Your task to perform on an android device: When is my next meeting? Image 0: 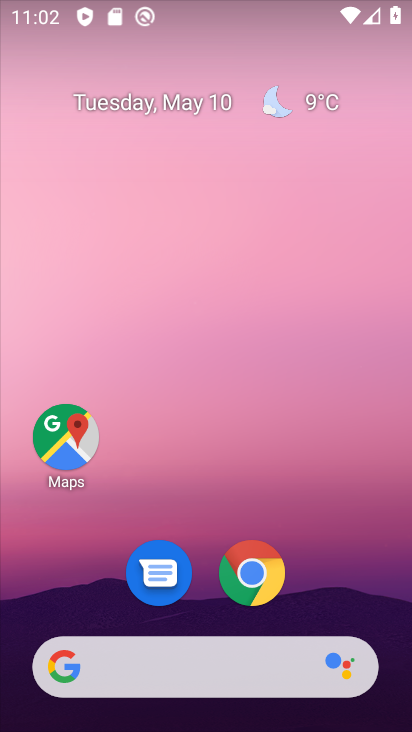
Step 0: drag from (207, 617) to (314, 279)
Your task to perform on an android device: When is my next meeting? Image 1: 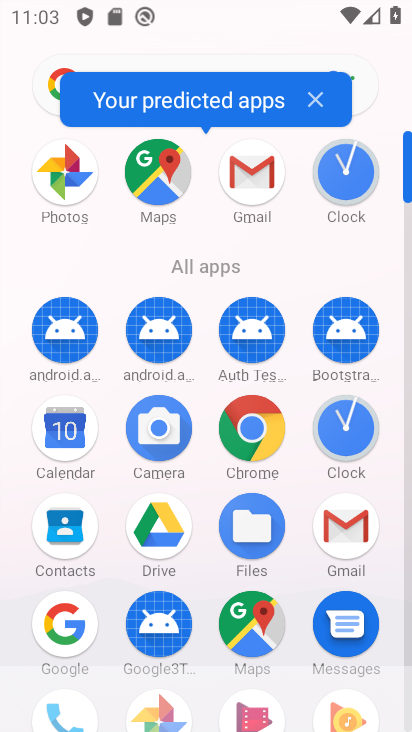
Step 1: click (62, 441)
Your task to perform on an android device: When is my next meeting? Image 2: 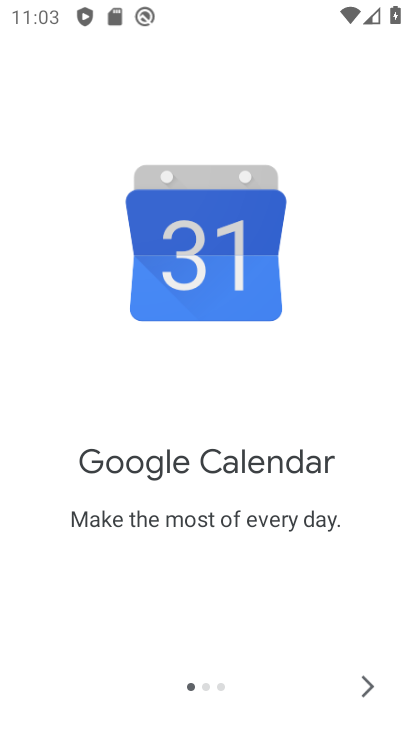
Step 2: click (373, 682)
Your task to perform on an android device: When is my next meeting? Image 3: 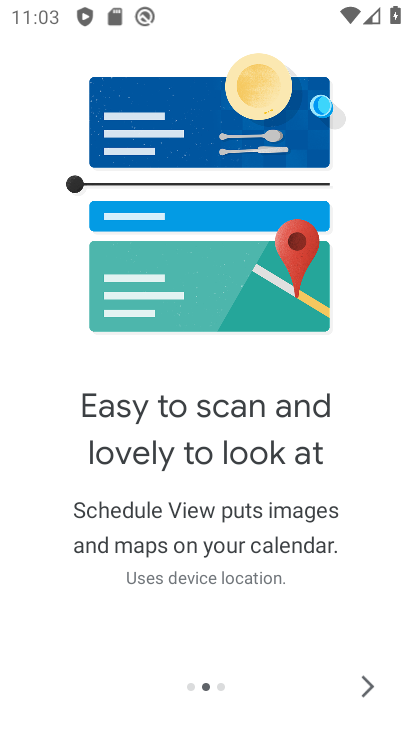
Step 3: click (373, 682)
Your task to perform on an android device: When is my next meeting? Image 4: 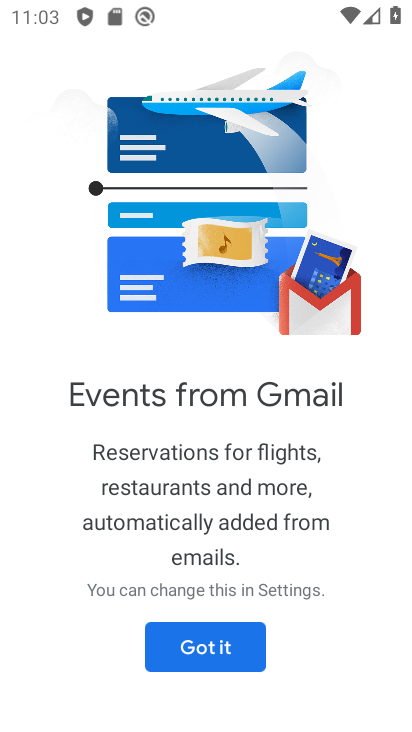
Step 4: click (180, 647)
Your task to perform on an android device: When is my next meeting? Image 5: 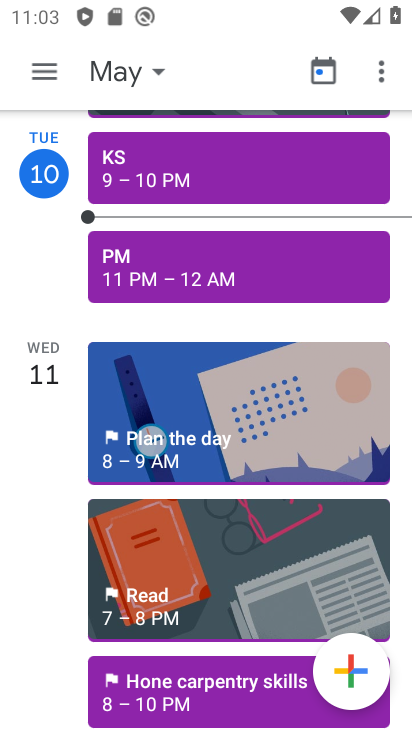
Step 5: click (99, 71)
Your task to perform on an android device: When is my next meeting? Image 6: 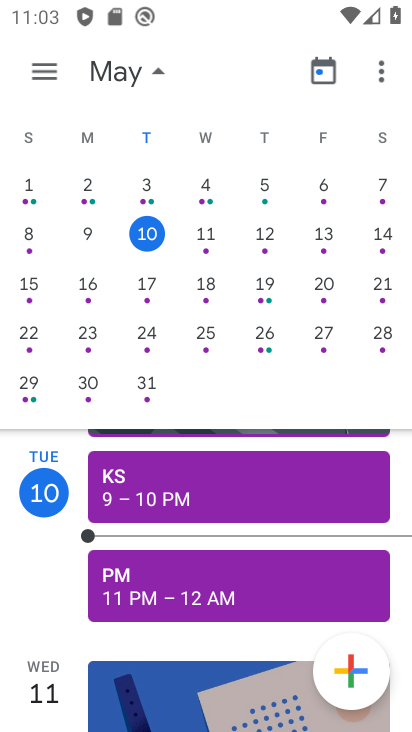
Step 6: click (43, 74)
Your task to perform on an android device: When is my next meeting? Image 7: 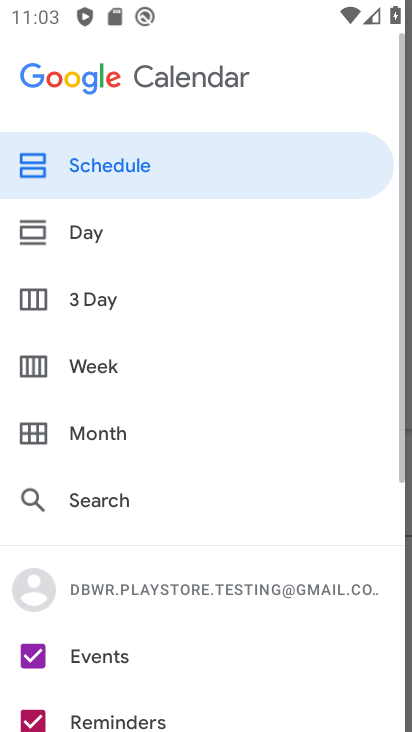
Step 7: click (85, 237)
Your task to perform on an android device: When is my next meeting? Image 8: 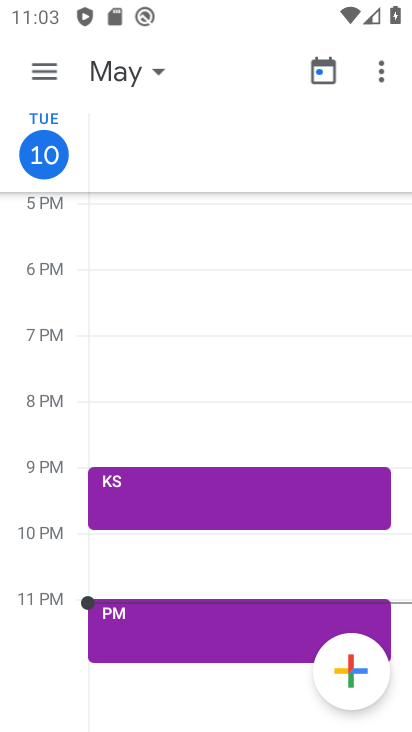
Step 8: click (37, 81)
Your task to perform on an android device: When is my next meeting? Image 9: 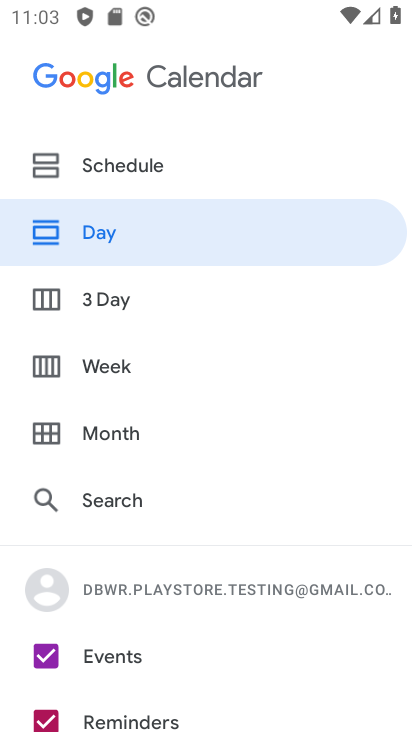
Step 9: click (133, 167)
Your task to perform on an android device: When is my next meeting? Image 10: 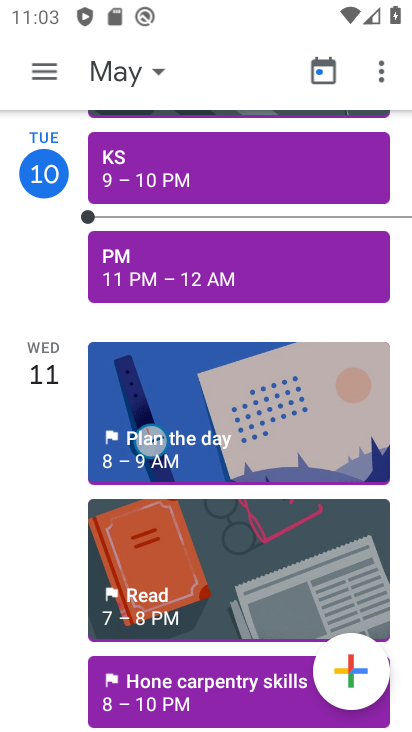
Step 10: click (195, 261)
Your task to perform on an android device: When is my next meeting? Image 11: 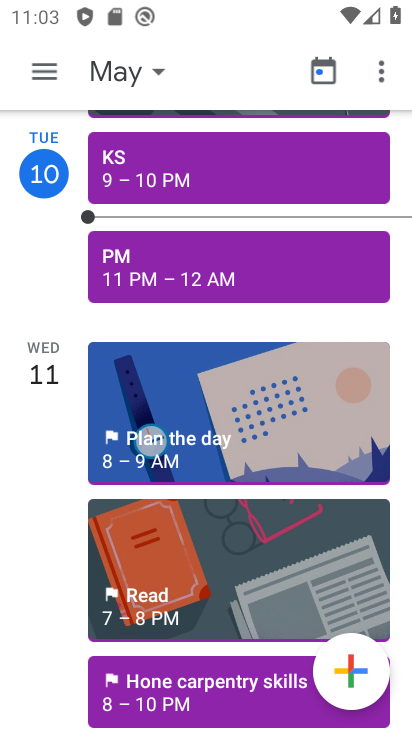
Step 11: click (119, 270)
Your task to perform on an android device: When is my next meeting? Image 12: 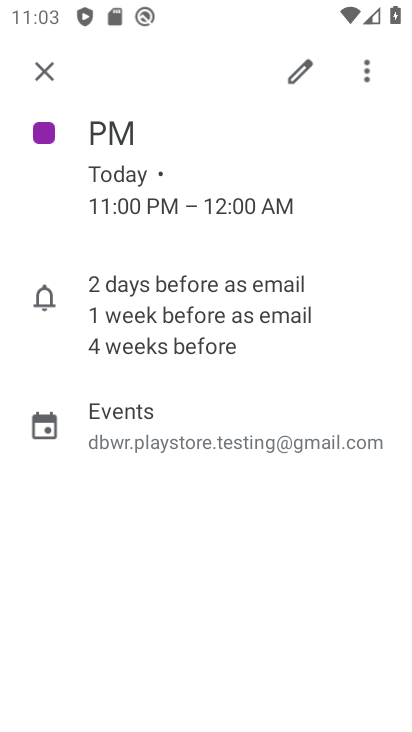
Step 12: task complete